Your task to perform on an android device: choose inbox layout in the gmail app Image 0: 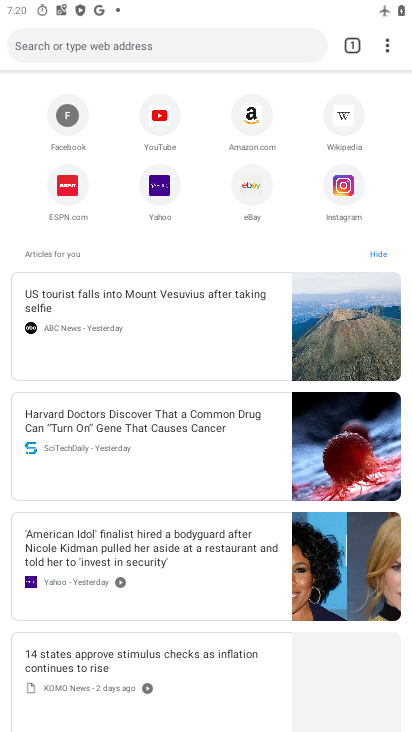
Step 0: press home button
Your task to perform on an android device: choose inbox layout in the gmail app Image 1: 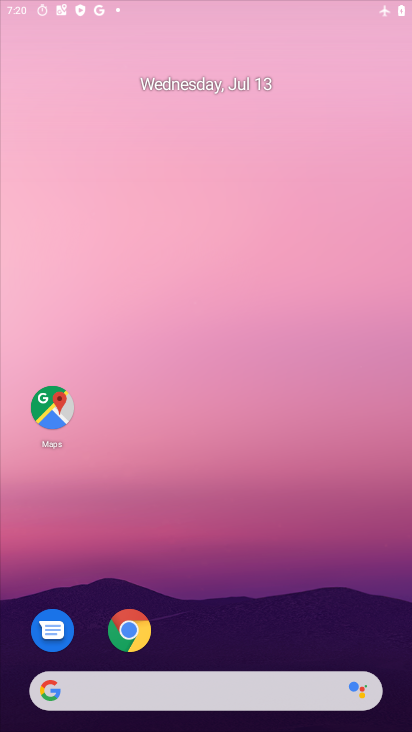
Step 1: drag from (107, 635) to (85, 130)
Your task to perform on an android device: choose inbox layout in the gmail app Image 2: 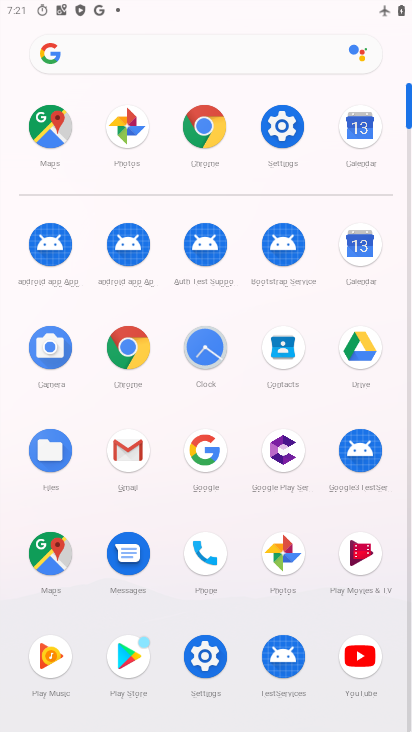
Step 2: click (113, 445)
Your task to perform on an android device: choose inbox layout in the gmail app Image 3: 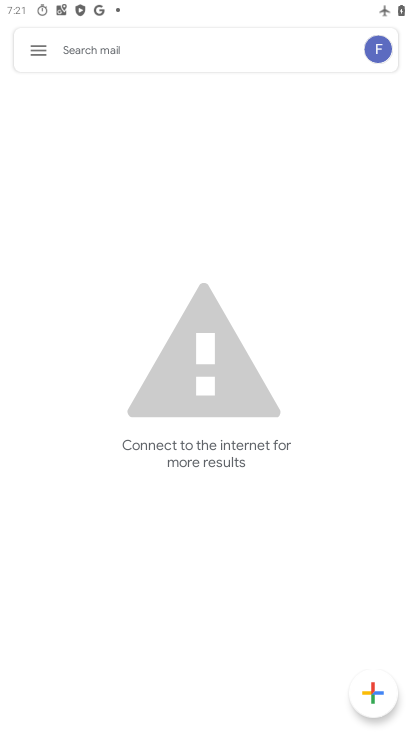
Step 3: task complete